Your task to perform on an android device: star an email in the gmail app Image 0: 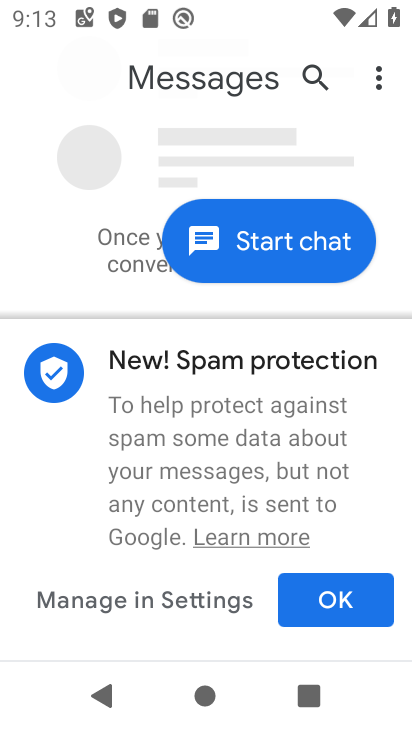
Step 0: press home button
Your task to perform on an android device: star an email in the gmail app Image 1: 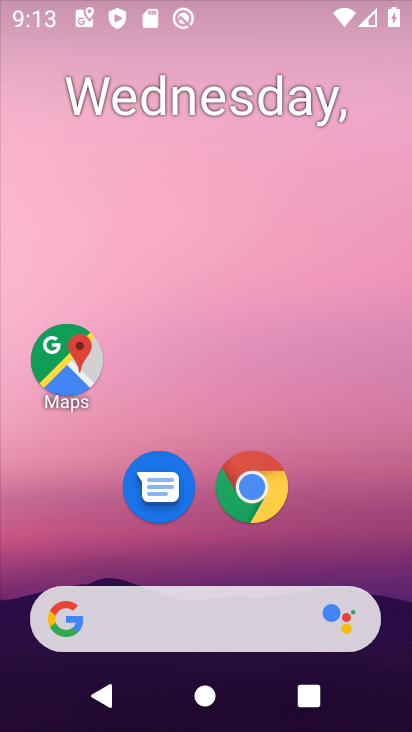
Step 1: drag from (391, 549) to (312, 138)
Your task to perform on an android device: star an email in the gmail app Image 2: 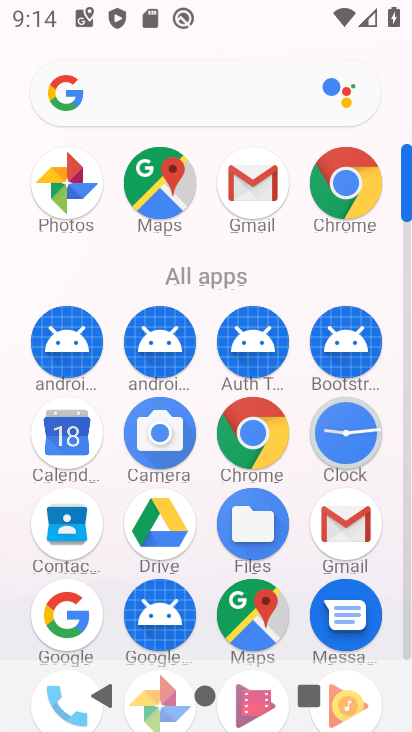
Step 2: click (338, 523)
Your task to perform on an android device: star an email in the gmail app Image 3: 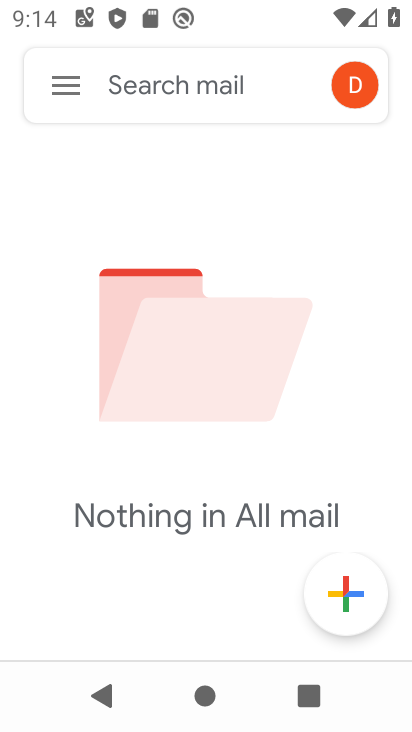
Step 3: click (60, 93)
Your task to perform on an android device: star an email in the gmail app Image 4: 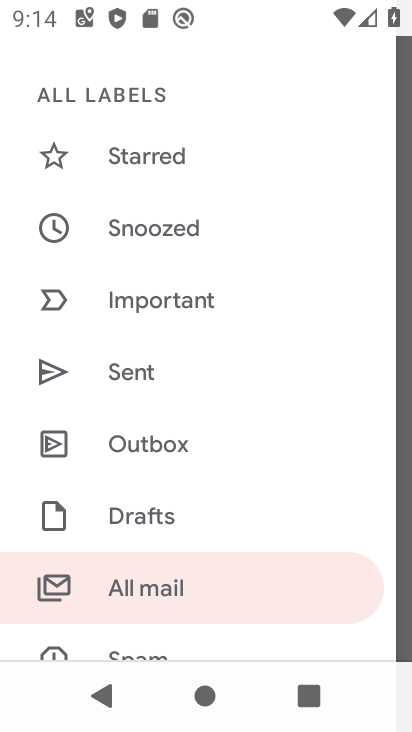
Step 4: drag from (214, 495) to (224, 283)
Your task to perform on an android device: star an email in the gmail app Image 5: 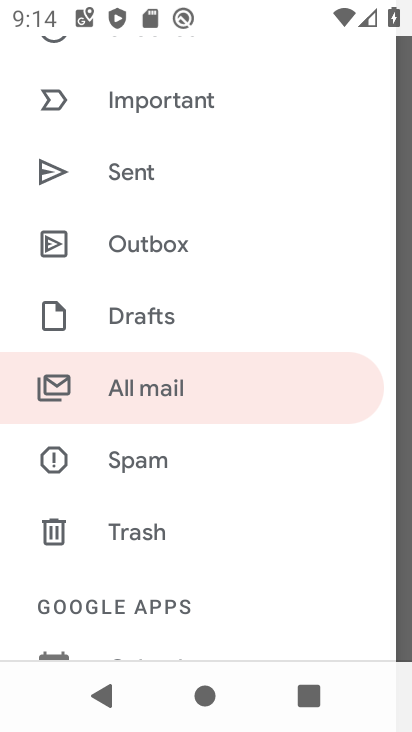
Step 5: drag from (180, 163) to (180, 507)
Your task to perform on an android device: star an email in the gmail app Image 6: 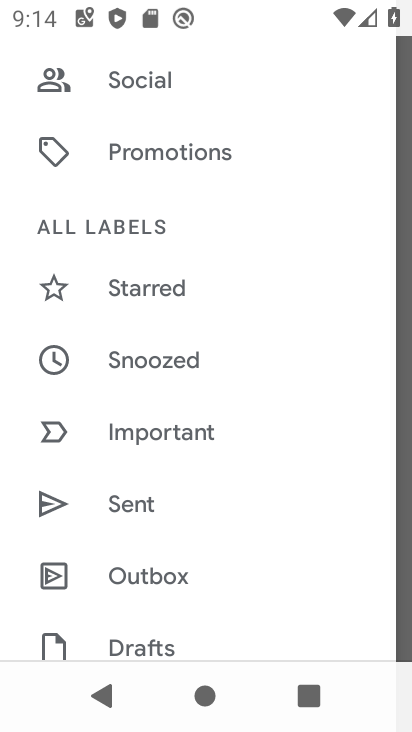
Step 6: click (175, 294)
Your task to perform on an android device: star an email in the gmail app Image 7: 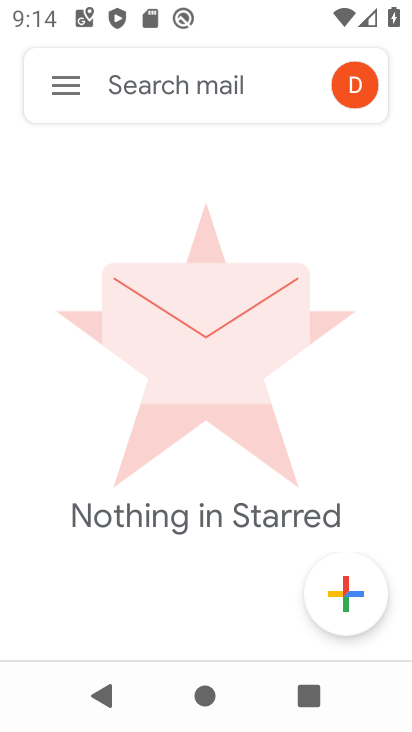
Step 7: task complete